Your task to perform on an android device: Find coffee shops on Maps Image 0: 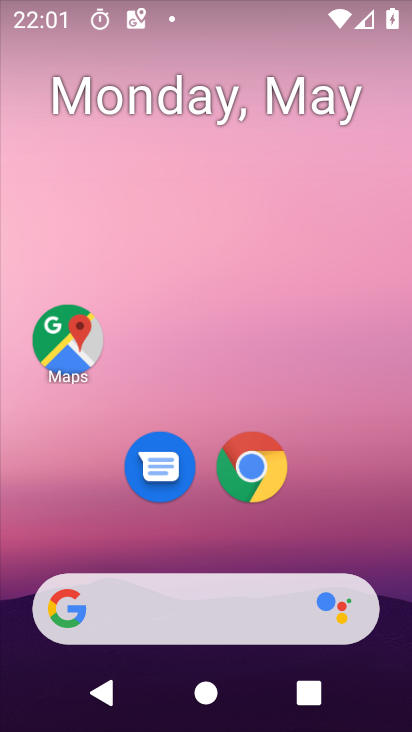
Step 0: press home button
Your task to perform on an android device: Find coffee shops on Maps Image 1: 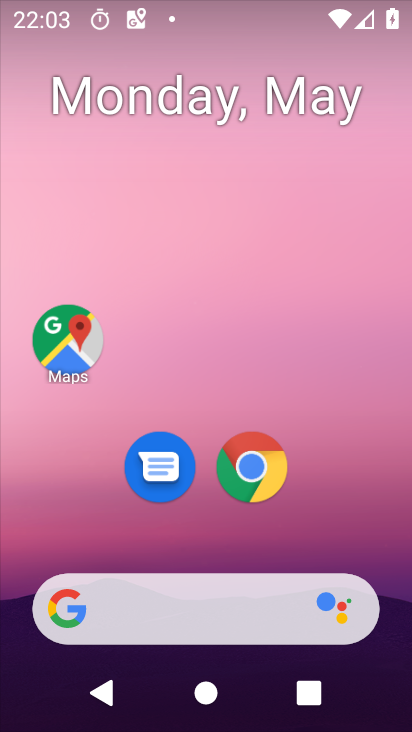
Step 1: drag from (227, 646) to (339, 22)
Your task to perform on an android device: Find coffee shops on Maps Image 2: 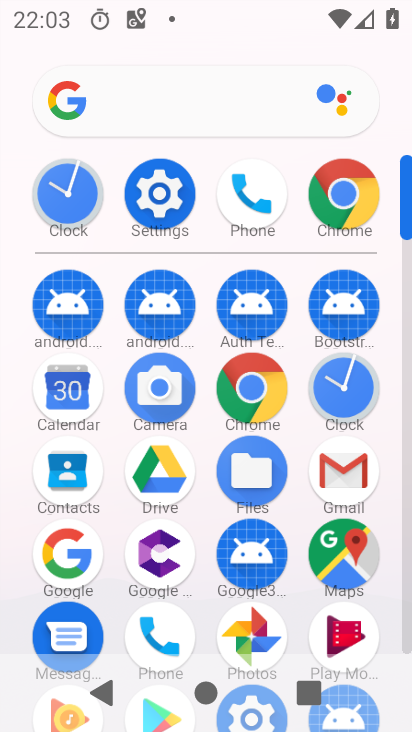
Step 2: click (339, 537)
Your task to perform on an android device: Find coffee shops on Maps Image 3: 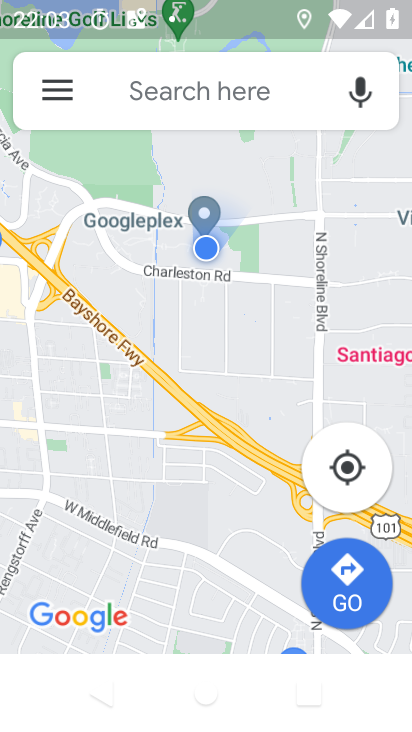
Step 3: click (146, 84)
Your task to perform on an android device: Find coffee shops on Maps Image 4: 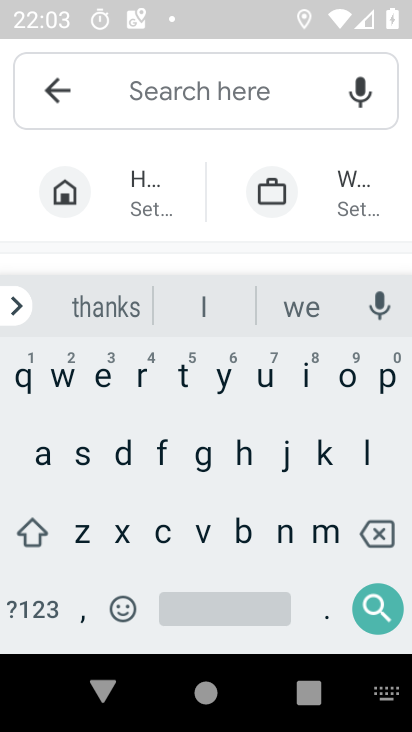
Step 4: click (166, 539)
Your task to perform on an android device: Find coffee shops on Maps Image 5: 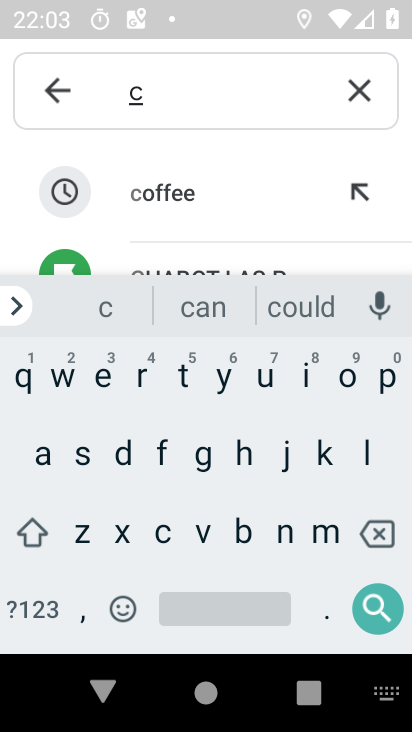
Step 5: click (199, 183)
Your task to perform on an android device: Find coffee shops on Maps Image 6: 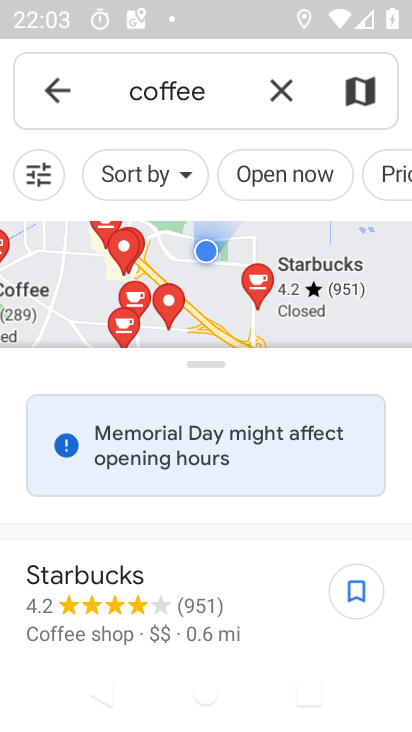
Step 6: task complete